Your task to perform on an android device: turn off airplane mode Image 0: 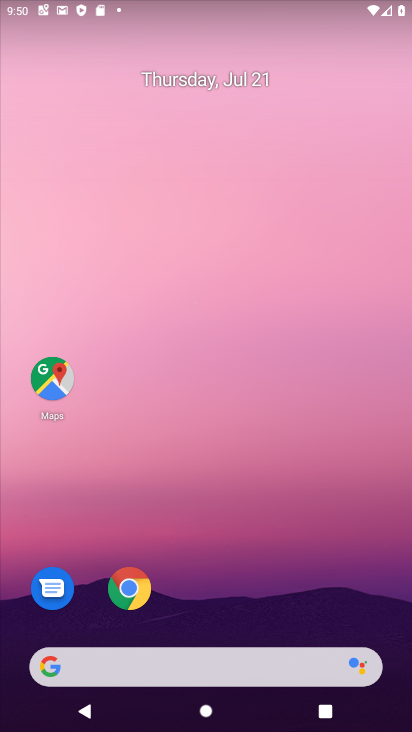
Step 0: drag from (365, 9) to (253, 677)
Your task to perform on an android device: turn off airplane mode Image 1: 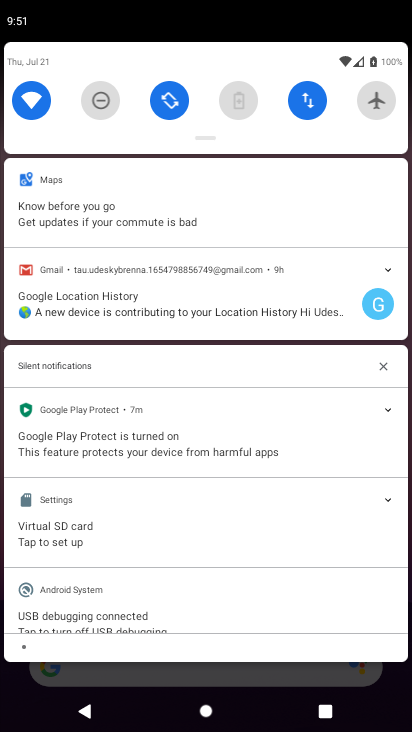
Step 1: task complete